Your task to perform on an android device: turn on sleep mode Image 0: 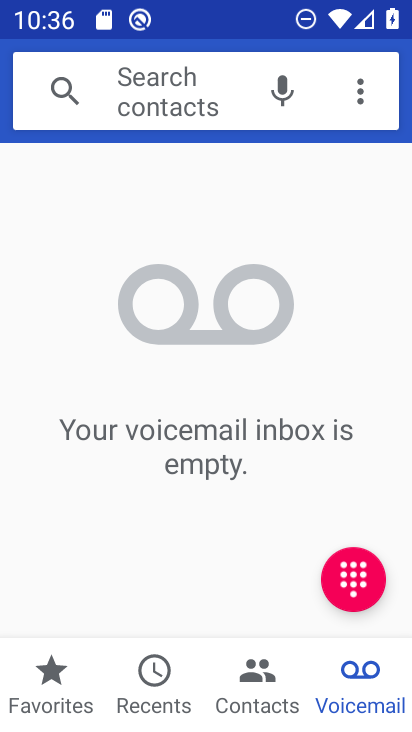
Step 0: press home button
Your task to perform on an android device: turn on sleep mode Image 1: 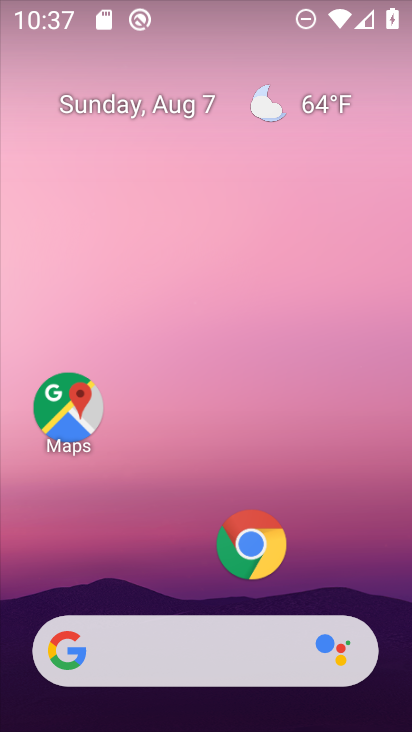
Step 1: drag from (222, 594) to (221, 32)
Your task to perform on an android device: turn on sleep mode Image 2: 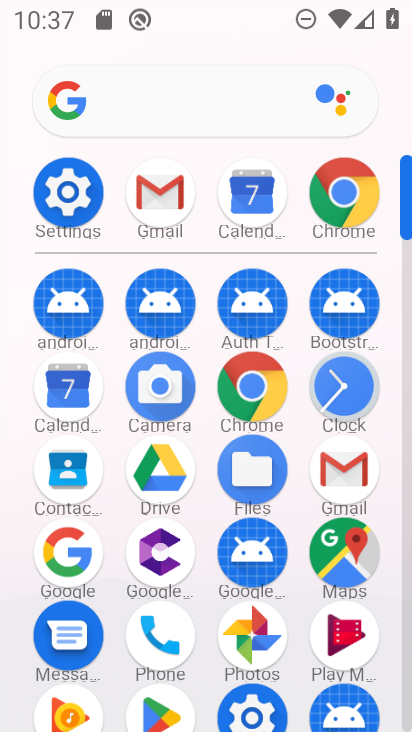
Step 2: click (241, 715)
Your task to perform on an android device: turn on sleep mode Image 3: 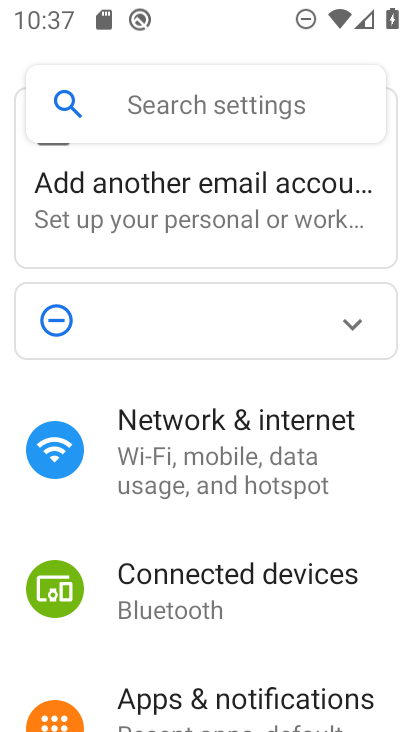
Step 3: drag from (347, 571) to (367, 344)
Your task to perform on an android device: turn on sleep mode Image 4: 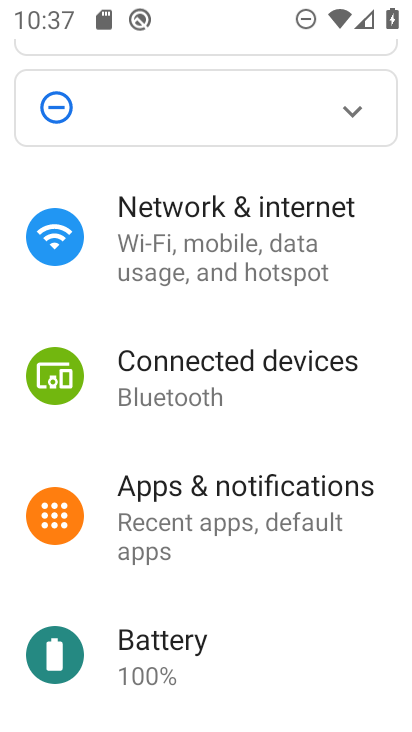
Step 4: drag from (271, 566) to (249, 346)
Your task to perform on an android device: turn on sleep mode Image 5: 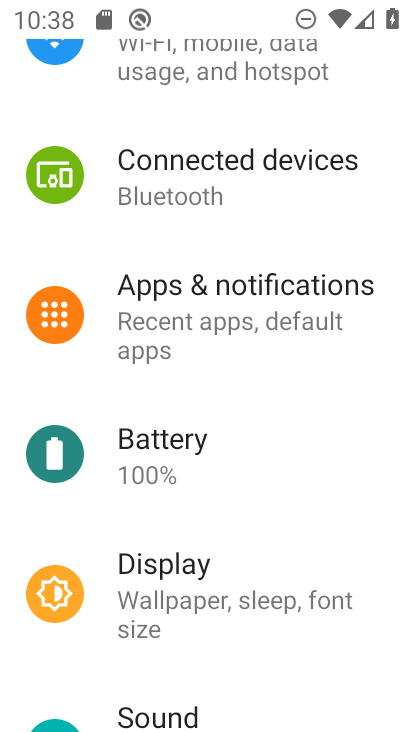
Step 5: click (147, 567)
Your task to perform on an android device: turn on sleep mode Image 6: 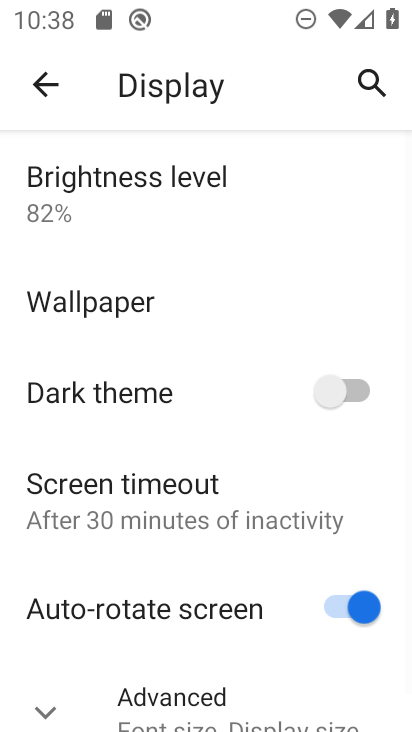
Step 6: task complete